Your task to perform on an android device: Go to privacy settings Image 0: 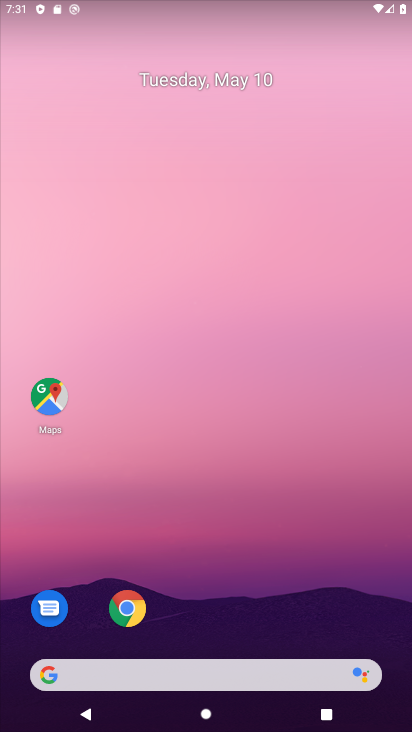
Step 0: drag from (275, 619) to (267, 208)
Your task to perform on an android device: Go to privacy settings Image 1: 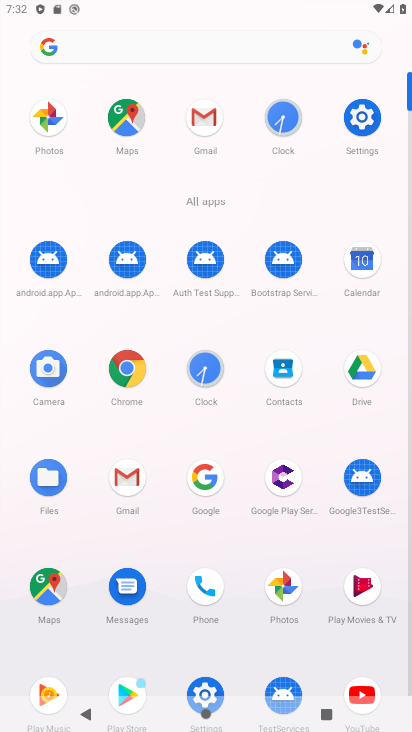
Step 1: click (132, 364)
Your task to perform on an android device: Go to privacy settings Image 2: 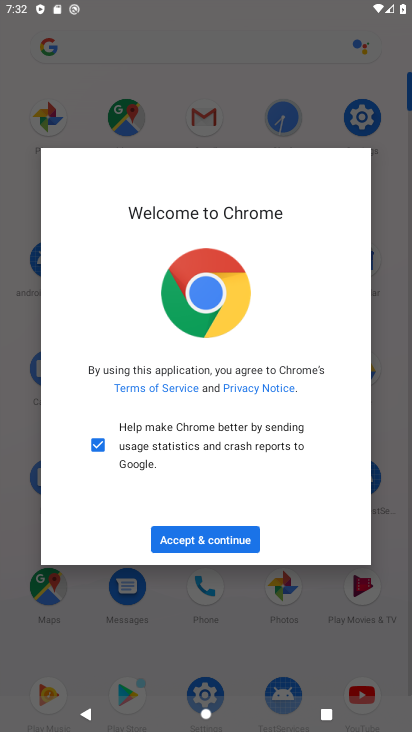
Step 2: click (200, 541)
Your task to perform on an android device: Go to privacy settings Image 3: 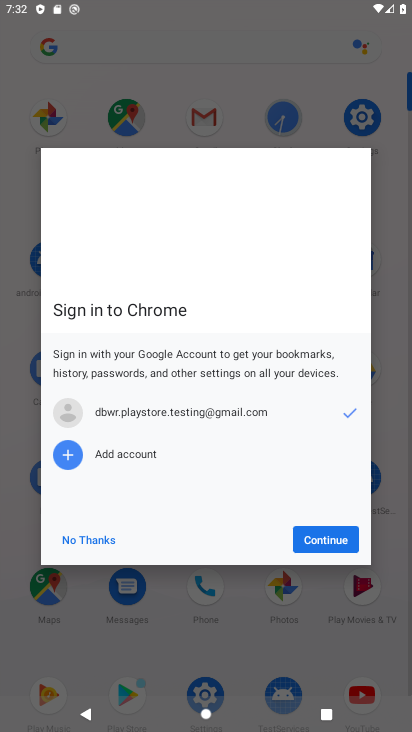
Step 3: click (311, 541)
Your task to perform on an android device: Go to privacy settings Image 4: 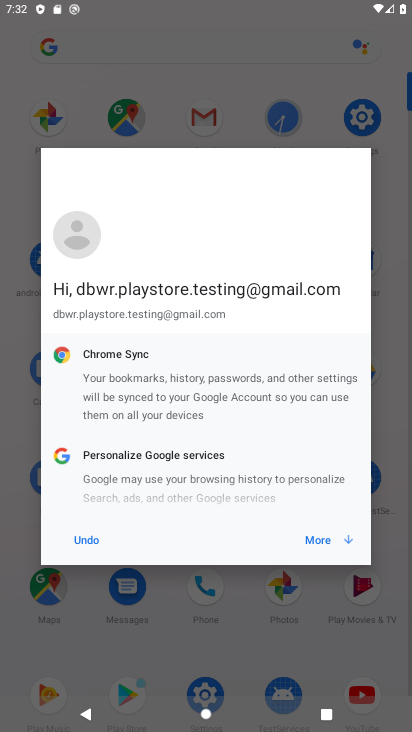
Step 4: click (311, 541)
Your task to perform on an android device: Go to privacy settings Image 5: 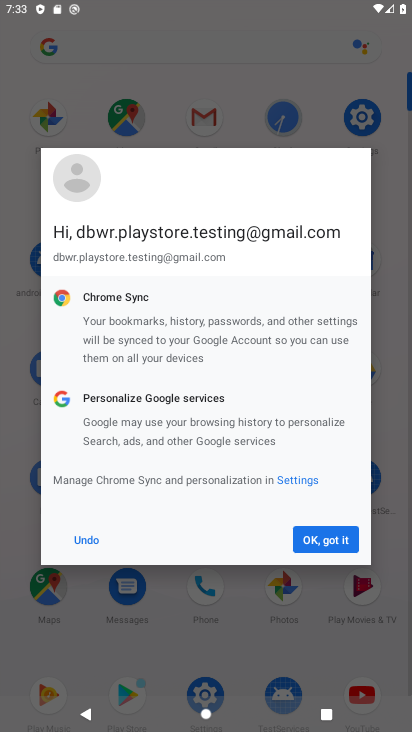
Step 5: click (315, 540)
Your task to perform on an android device: Go to privacy settings Image 6: 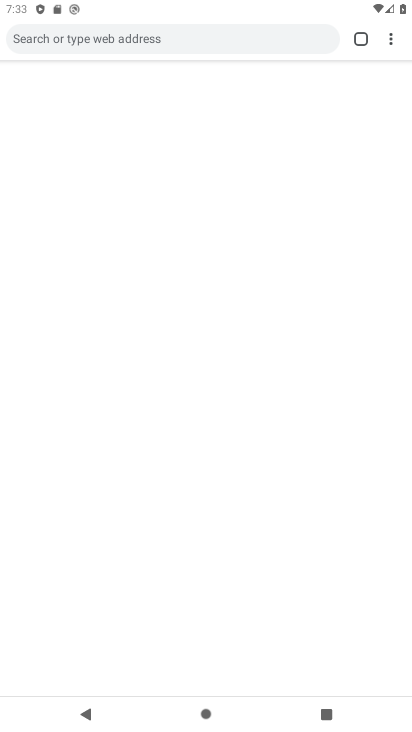
Step 6: click (385, 35)
Your task to perform on an android device: Go to privacy settings Image 7: 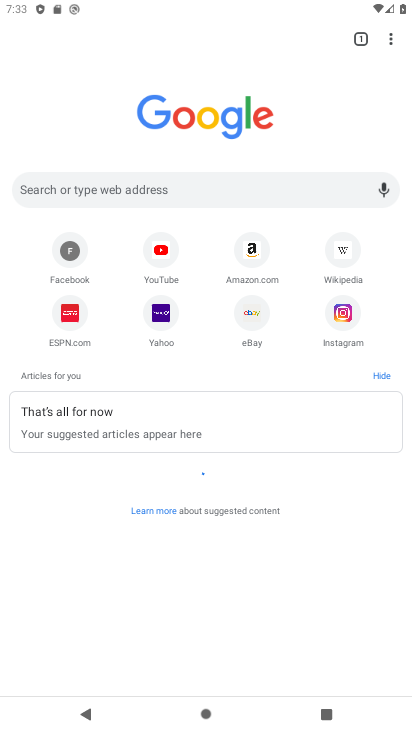
Step 7: click (383, 35)
Your task to perform on an android device: Go to privacy settings Image 8: 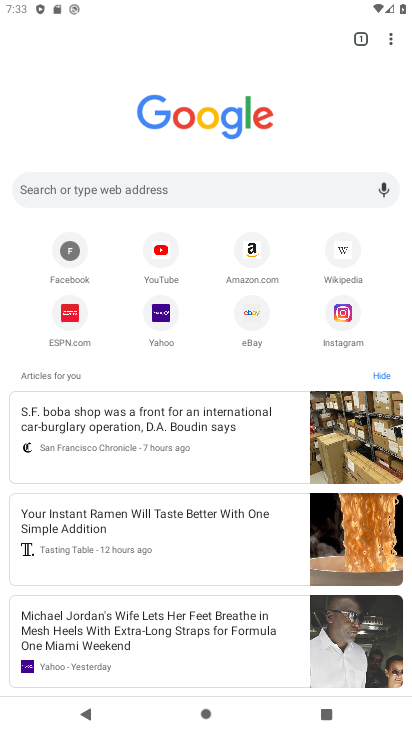
Step 8: click (382, 36)
Your task to perform on an android device: Go to privacy settings Image 9: 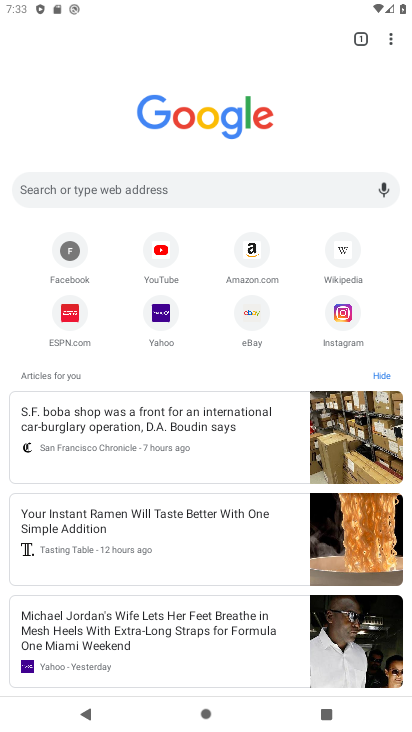
Step 9: click (387, 38)
Your task to perform on an android device: Go to privacy settings Image 10: 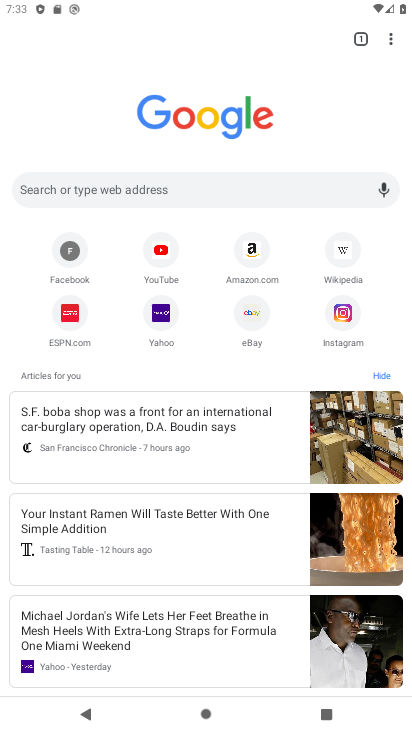
Step 10: click (384, 39)
Your task to perform on an android device: Go to privacy settings Image 11: 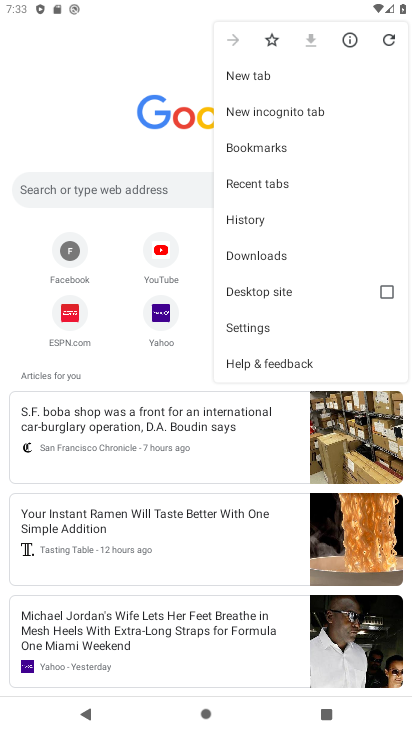
Step 11: click (260, 326)
Your task to perform on an android device: Go to privacy settings Image 12: 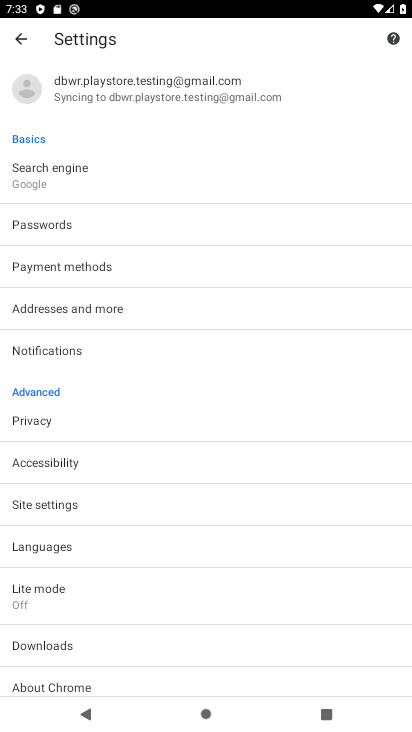
Step 12: click (52, 415)
Your task to perform on an android device: Go to privacy settings Image 13: 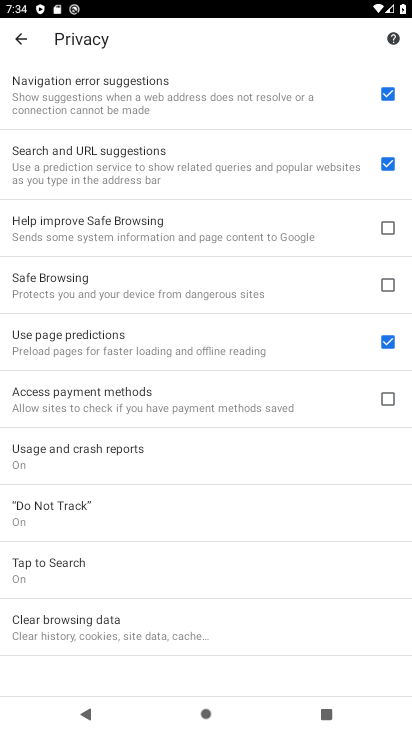
Step 13: task complete